Your task to perform on an android device: What's the time in New York? Image 0: 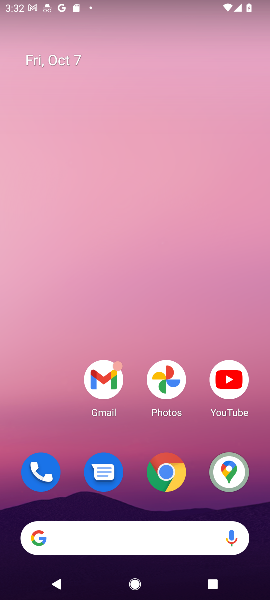
Step 0: click (167, 470)
Your task to perform on an android device: What's the time in New York? Image 1: 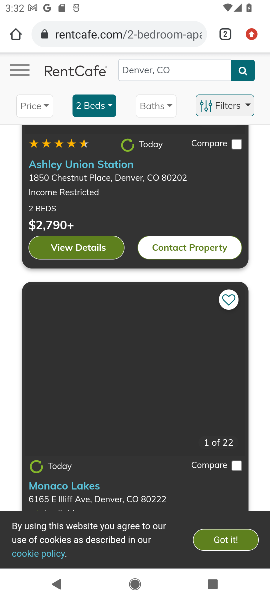
Step 1: click (150, 33)
Your task to perform on an android device: What's the time in New York? Image 2: 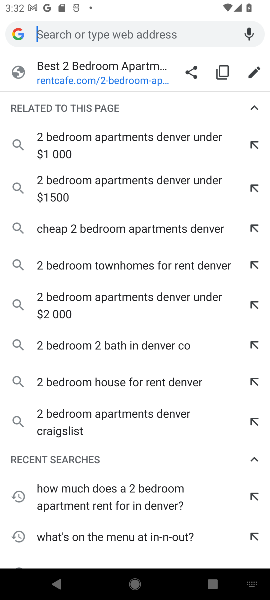
Step 2: type "What's the time in New York"
Your task to perform on an android device: What's the time in New York? Image 3: 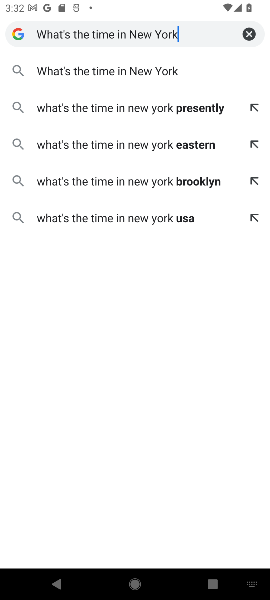
Step 3: click (129, 73)
Your task to perform on an android device: What's the time in New York? Image 4: 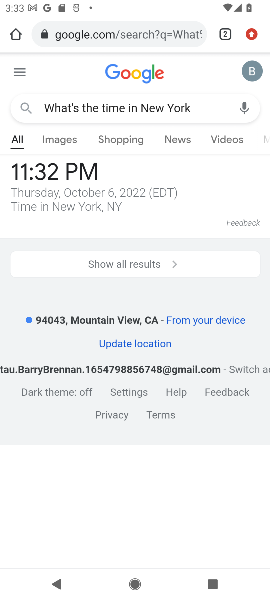
Step 4: task complete